Your task to perform on an android device: Open calendar and show me the third week of next month Image 0: 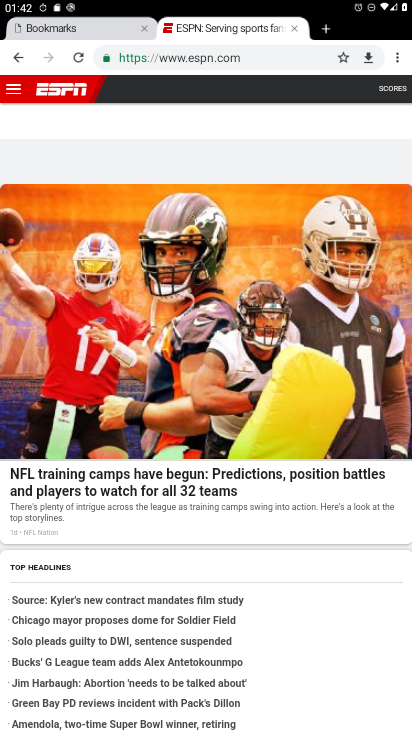
Step 0: press home button
Your task to perform on an android device: Open calendar and show me the third week of next month Image 1: 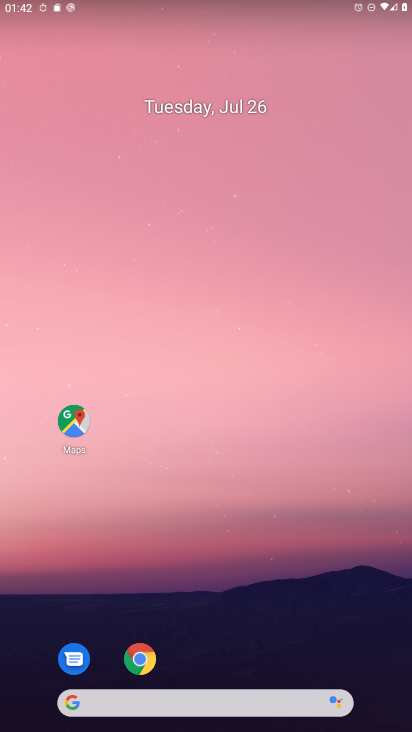
Step 1: drag from (291, 553) to (296, 167)
Your task to perform on an android device: Open calendar and show me the third week of next month Image 2: 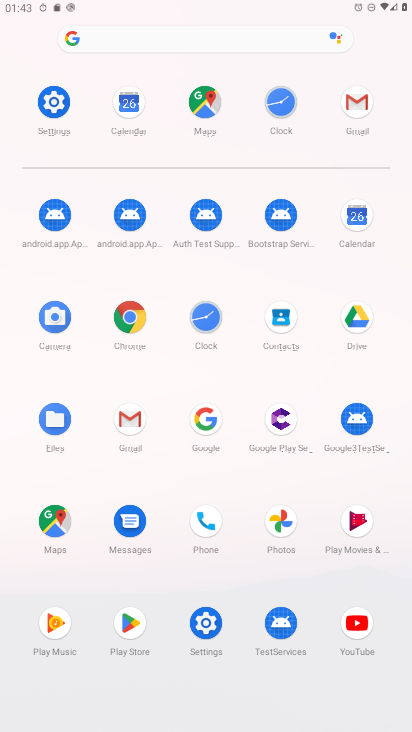
Step 2: click (367, 212)
Your task to perform on an android device: Open calendar and show me the third week of next month Image 3: 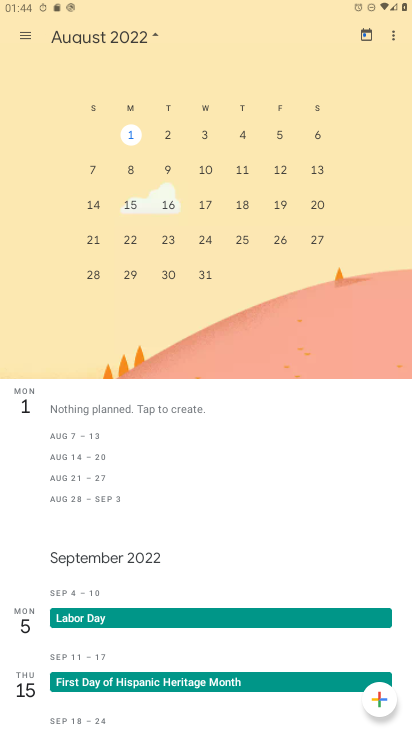
Step 3: click (124, 188)
Your task to perform on an android device: Open calendar and show me the third week of next month Image 4: 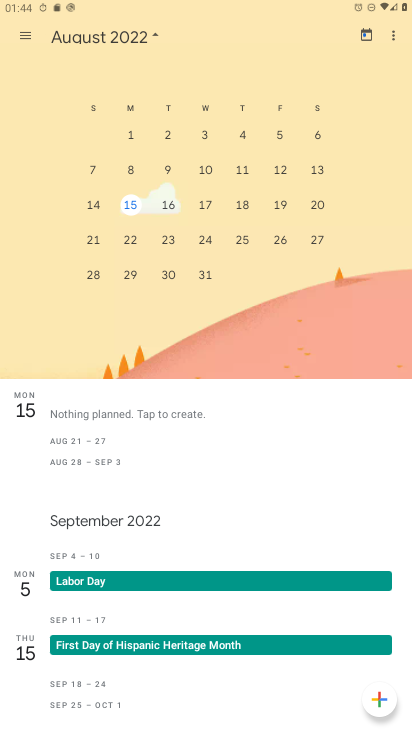
Step 4: task complete